Your task to perform on an android device: Open the map Image 0: 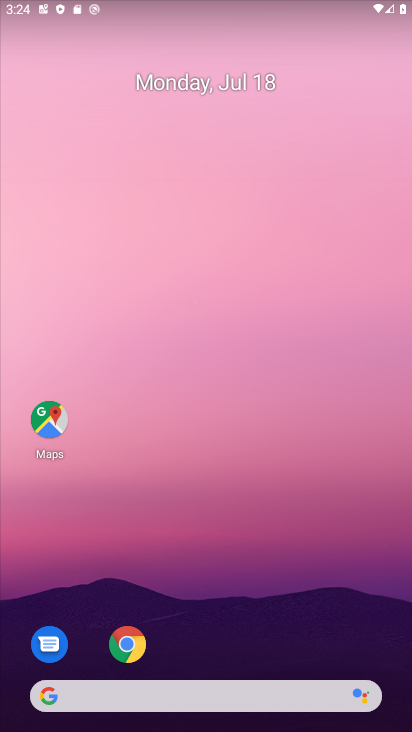
Step 0: click (51, 421)
Your task to perform on an android device: Open the map Image 1: 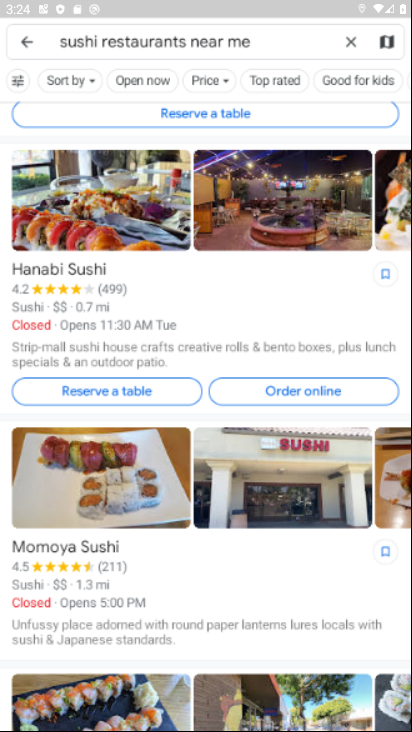
Step 1: click (349, 45)
Your task to perform on an android device: Open the map Image 2: 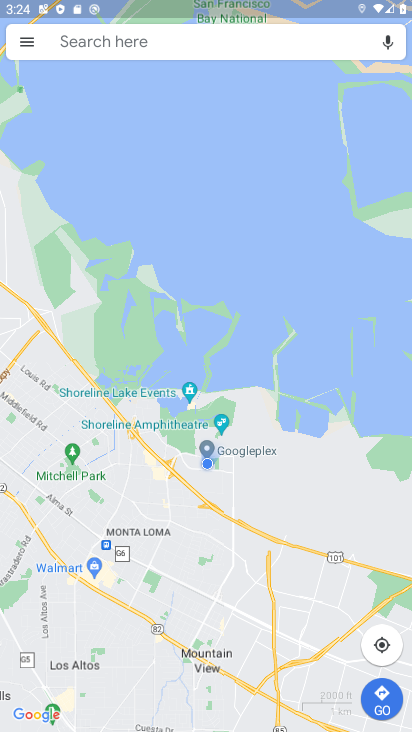
Step 2: task complete